Your task to perform on an android device: turn notification dots on Image 0: 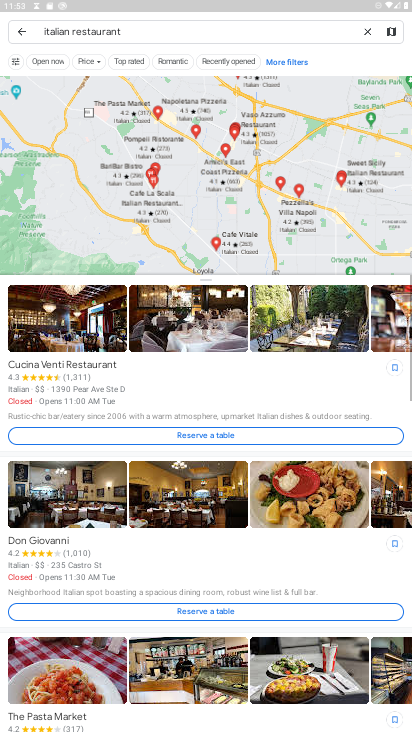
Step 0: press home button
Your task to perform on an android device: turn notification dots on Image 1: 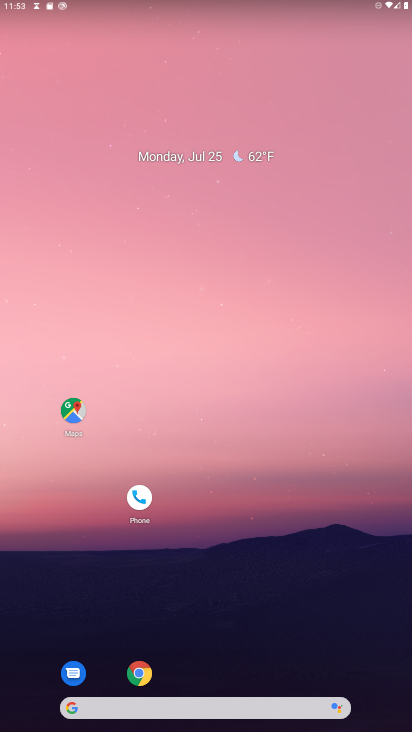
Step 1: drag from (210, 585) to (152, 34)
Your task to perform on an android device: turn notification dots on Image 2: 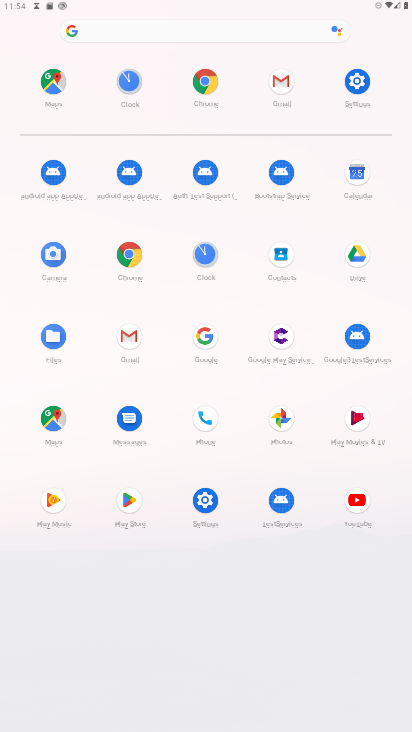
Step 2: click (362, 82)
Your task to perform on an android device: turn notification dots on Image 3: 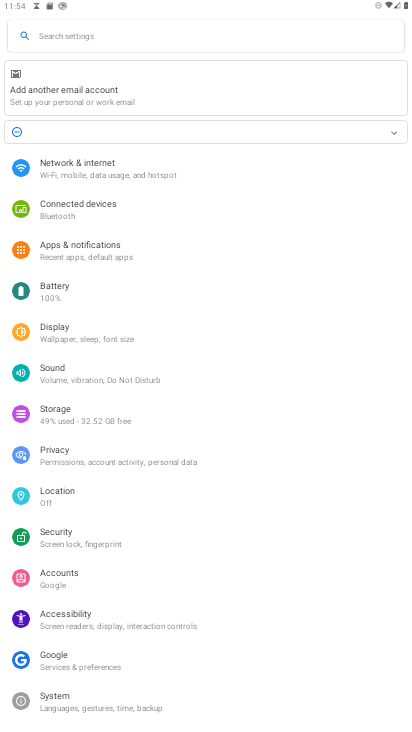
Step 3: click (103, 248)
Your task to perform on an android device: turn notification dots on Image 4: 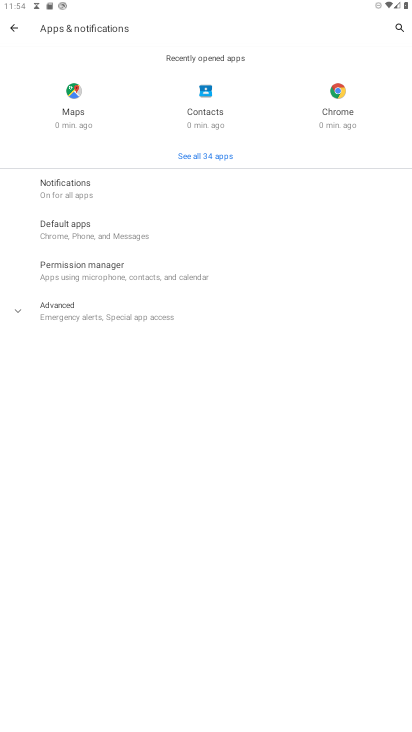
Step 4: click (73, 191)
Your task to perform on an android device: turn notification dots on Image 5: 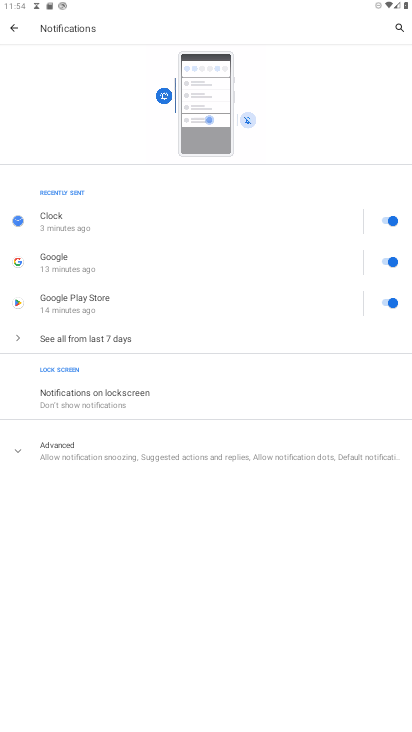
Step 5: click (18, 446)
Your task to perform on an android device: turn notification dots on Image 6: 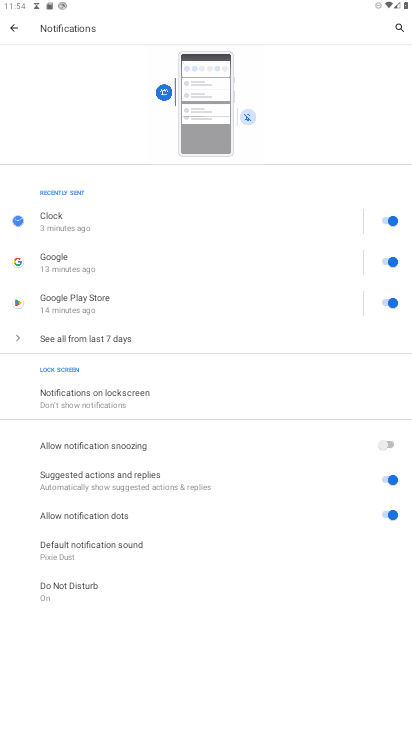
Step 6: task complete